Your task to perform on an android device: How much does the new iPad cost on eBay? Image 0: 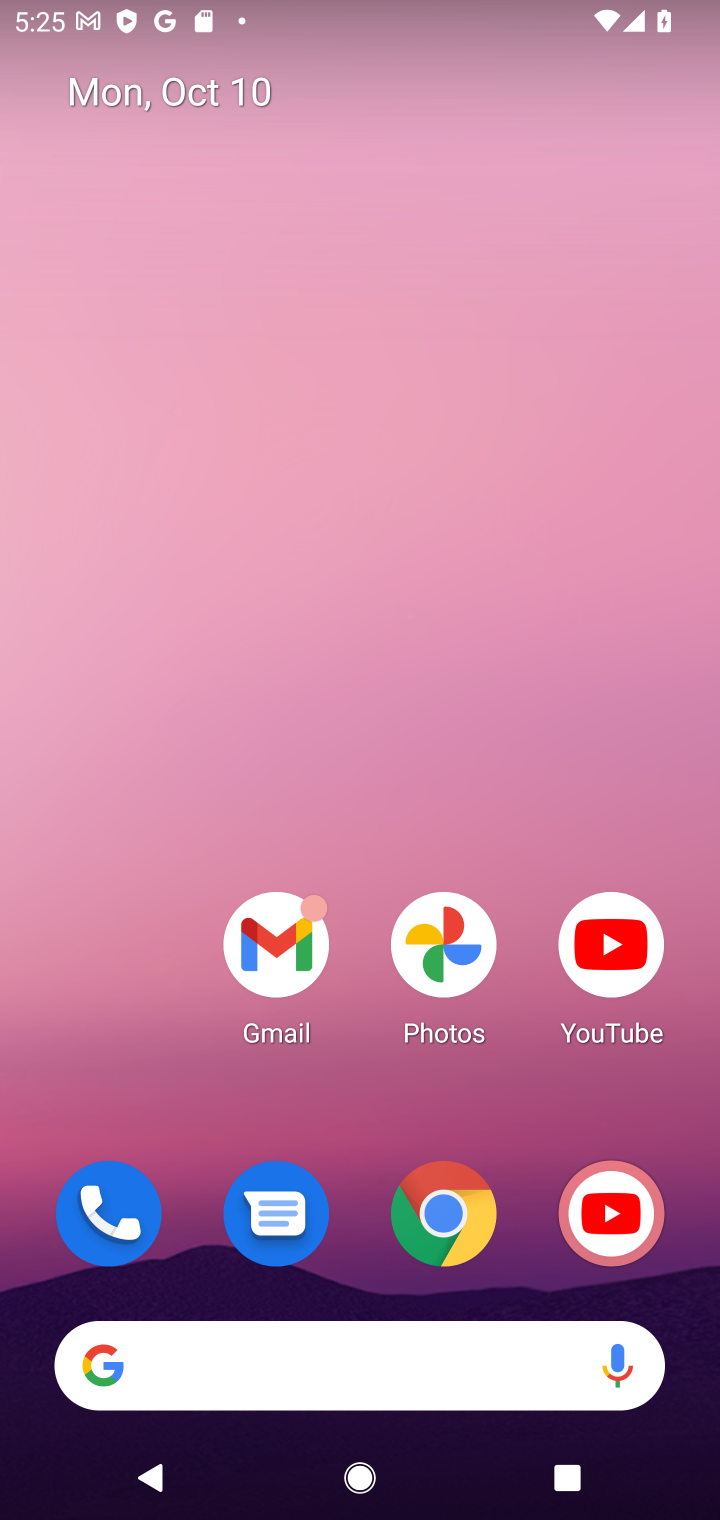
Step 0: click (306, 1372)
Your task to perform on an android device: How much does the new iPad cost on eBay? Image 1: 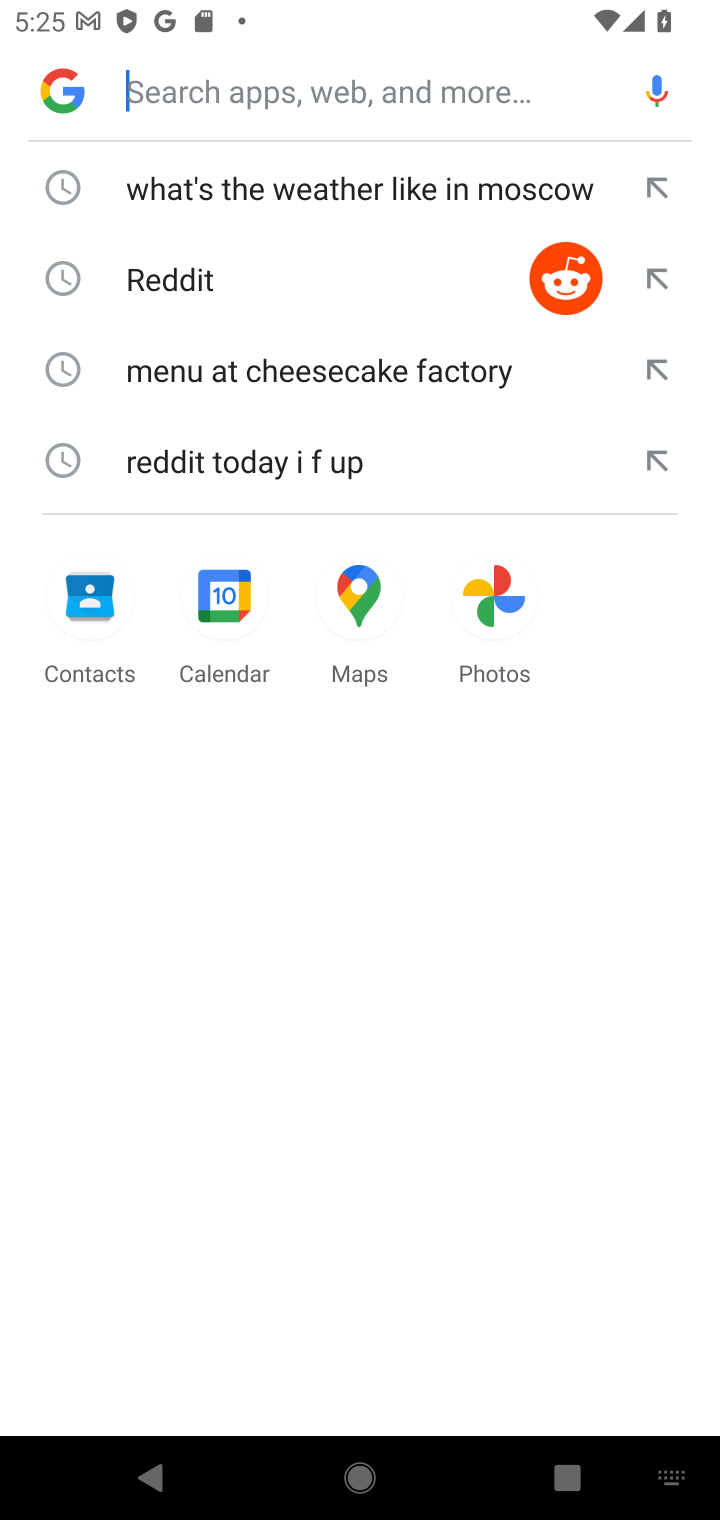
Step 1: type "new iPad cost on eBay"
Your task to perform on an android device: How much does the new iPad cost on eBay? Image 2: 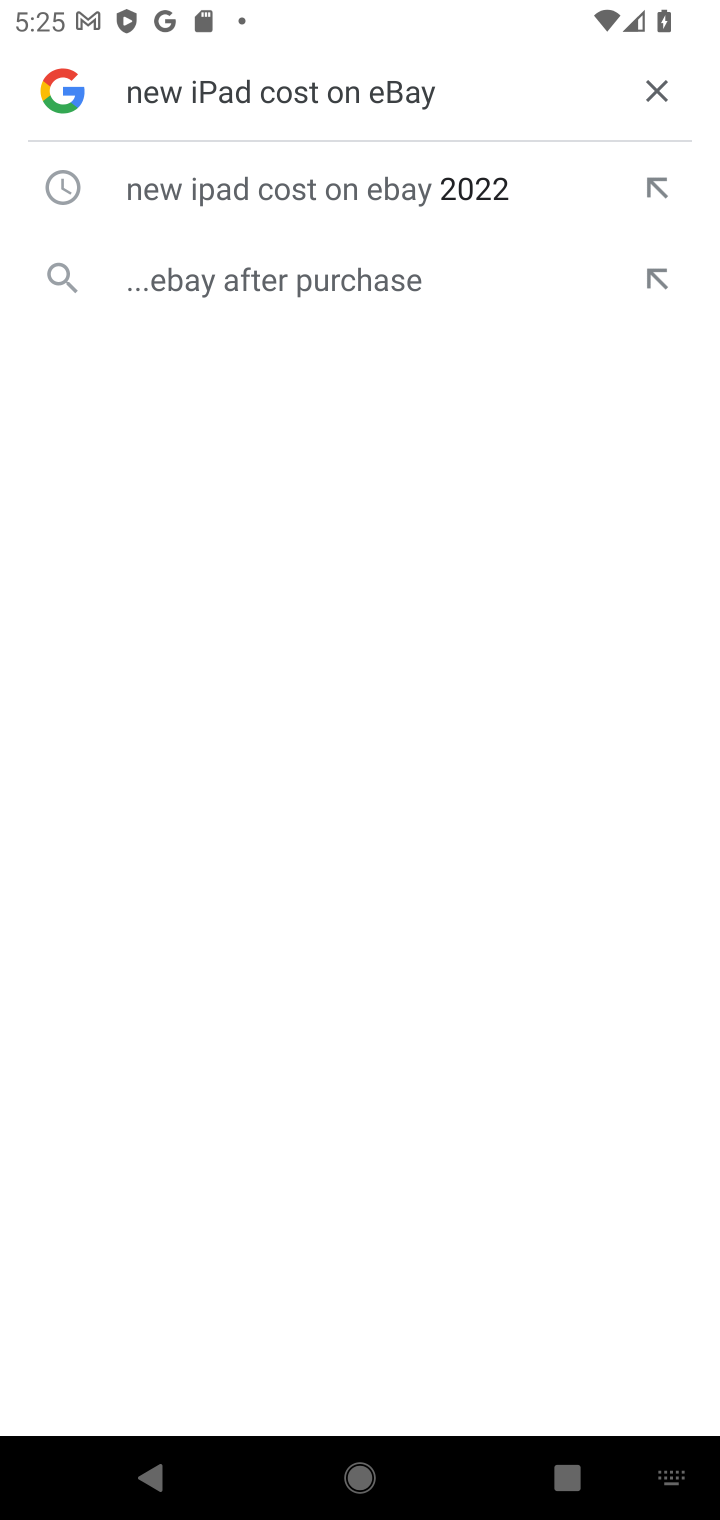
Step 2: click (272, 195)
Your task to perform on an android device: How much does the new iPad cost on eBay? Image 3: 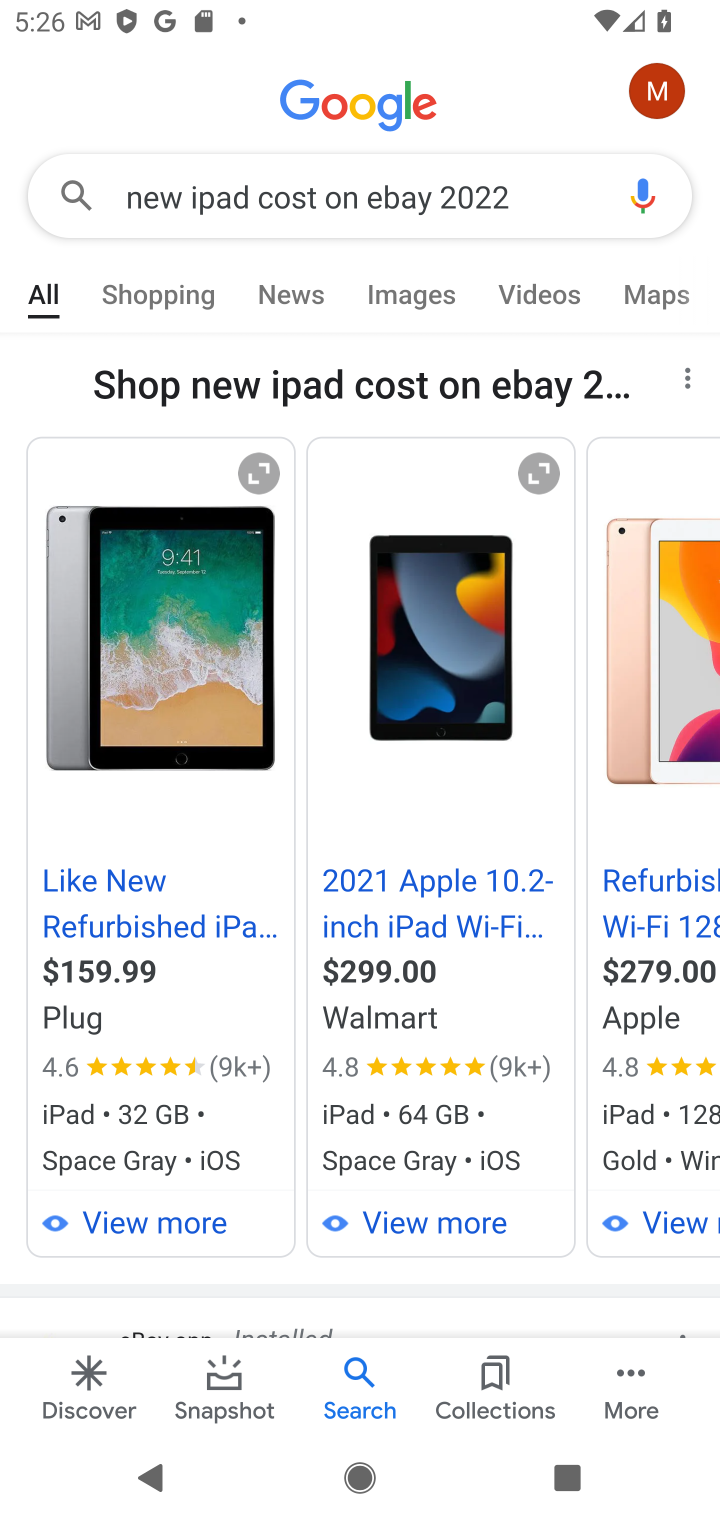
Step 3: task complete